Your task to perform on an android device: Do I have any events today? Image 0: 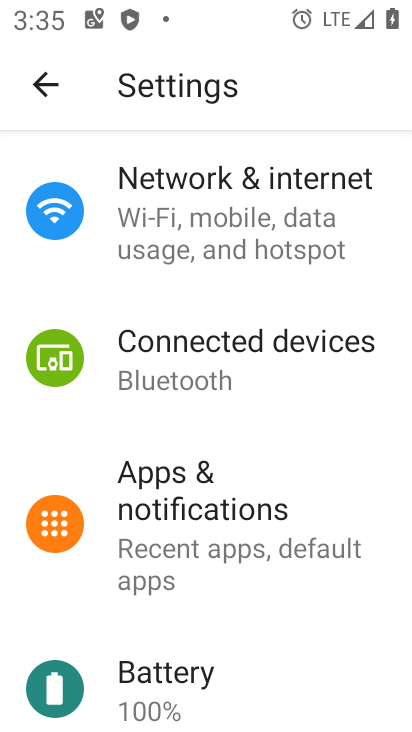
Step 0: press home button
Your task to perform on an android device: Do I have any events today? Image 1: 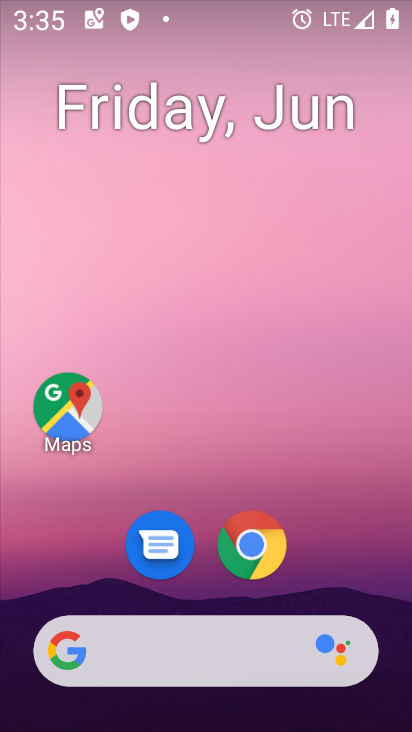
Step 1: drag from (340, 561) to (293, 10)
Your task to perform on an android device: Do I have any events today? Image 2: 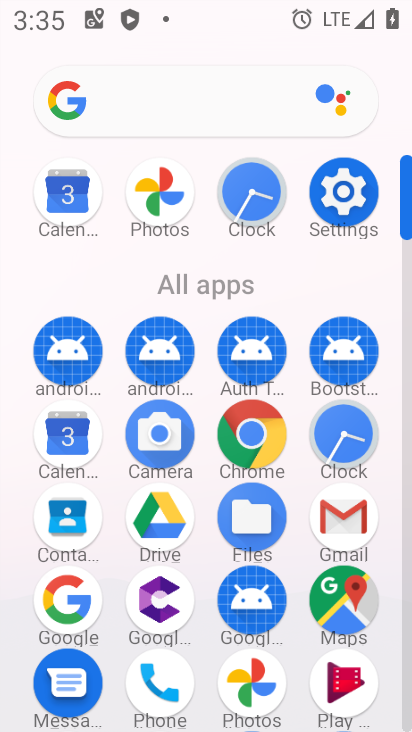
Step 2: click (66, 207)
Your task to perform on an android device: Do I have any events today? Image 3: 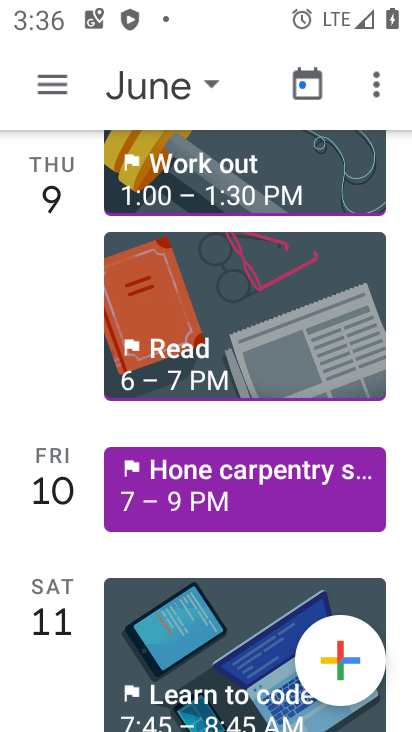
Step 3: click (143, 102)
Your task to perform on an android device: Do I have any events today? Image 4: 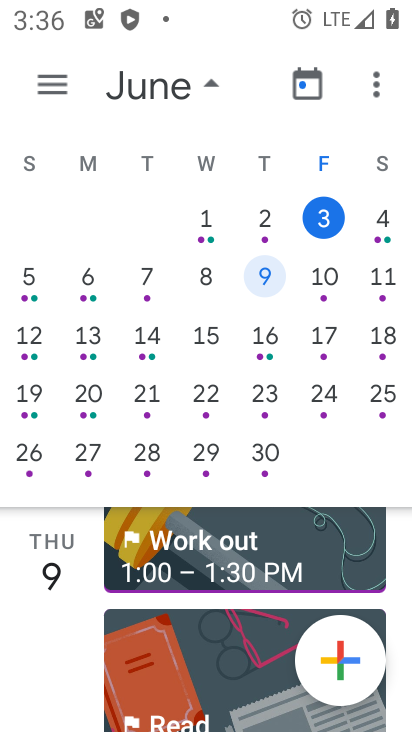
Step 4: click (334, 215)
Your task to perform on an android device: Do I have any events today? Image 5: 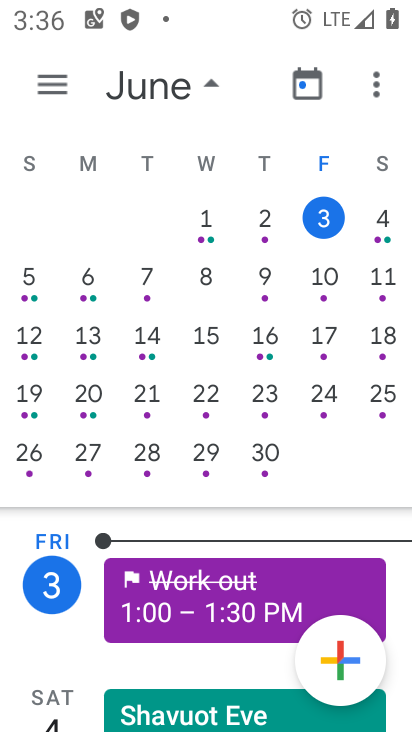
Step 5: task complete